Your task to perform on an android device: set an alarm Image 0: 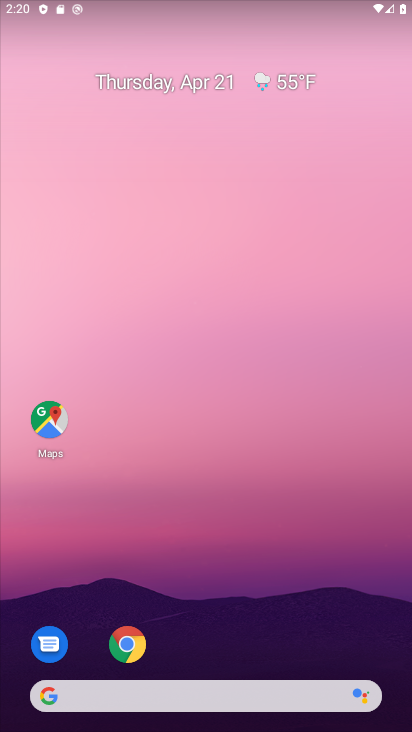
Step 0: drag from (217, 630) to (147, 83)
Your task to perform on an android device: set an alarm Image 1: 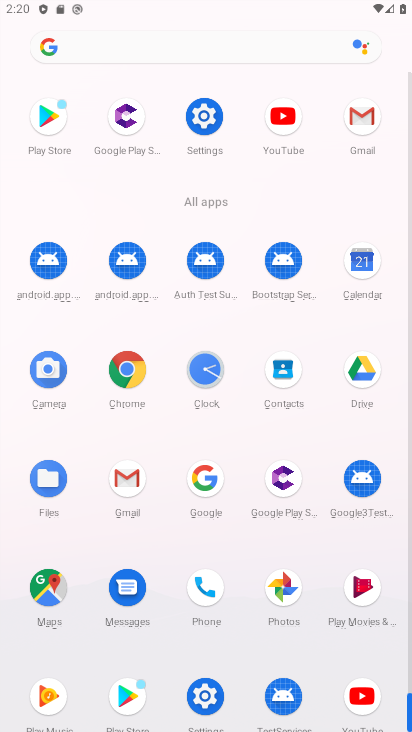
Step 1: click (200, 380)
Your task to perform on an android device: set an alarm Image 2: 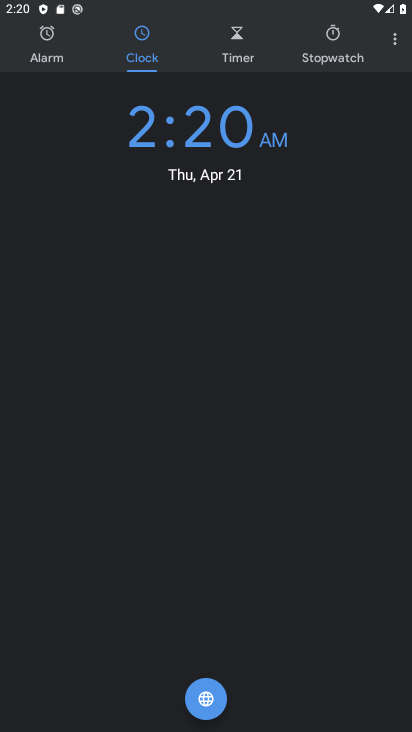
Step 2: click (55, 42)
Your task to perform on an android device: set an alarm Image 3: 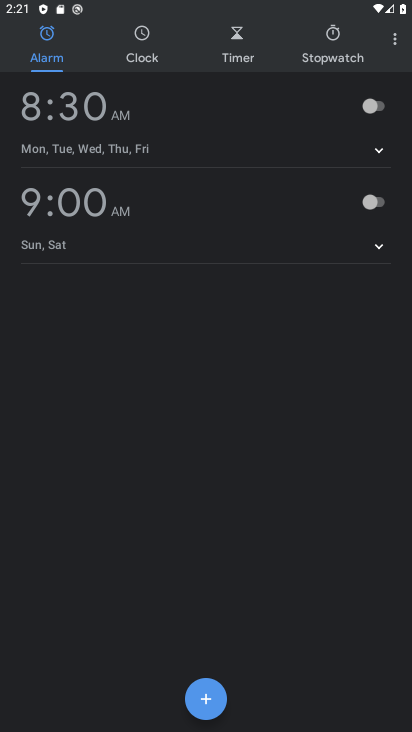
Step 3: click (210, 706)
Your task to perform on an android device: set an alarm Image 4: 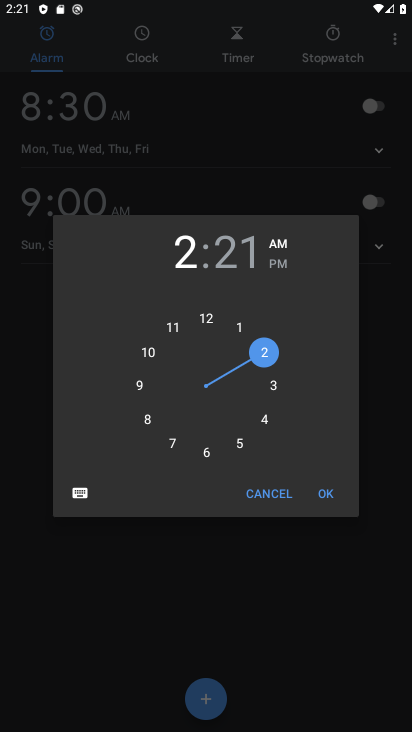
Step 4: click (280, 387)
Your task to perform on an android device: set an alarm Image 5: 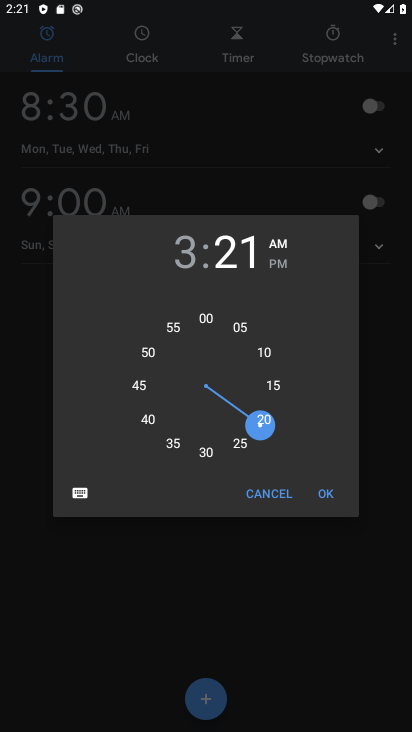
Step 5: click (329, 491)
Your task to perform on an android device: set an alarm Image 6: 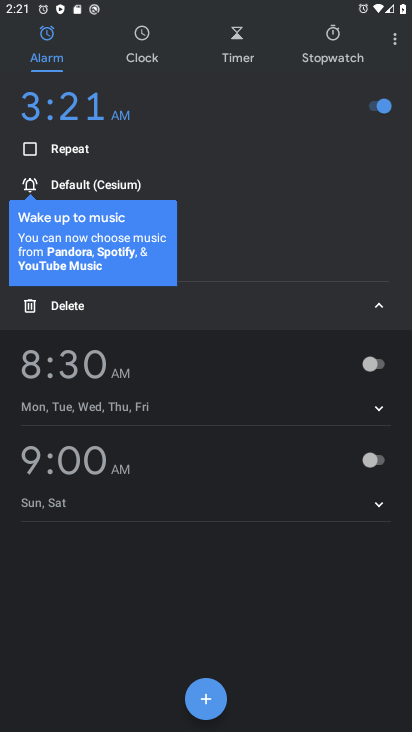
Step 6: task complete